Your task to perform on an android device: Is it going to rain this weekend? Image 0: 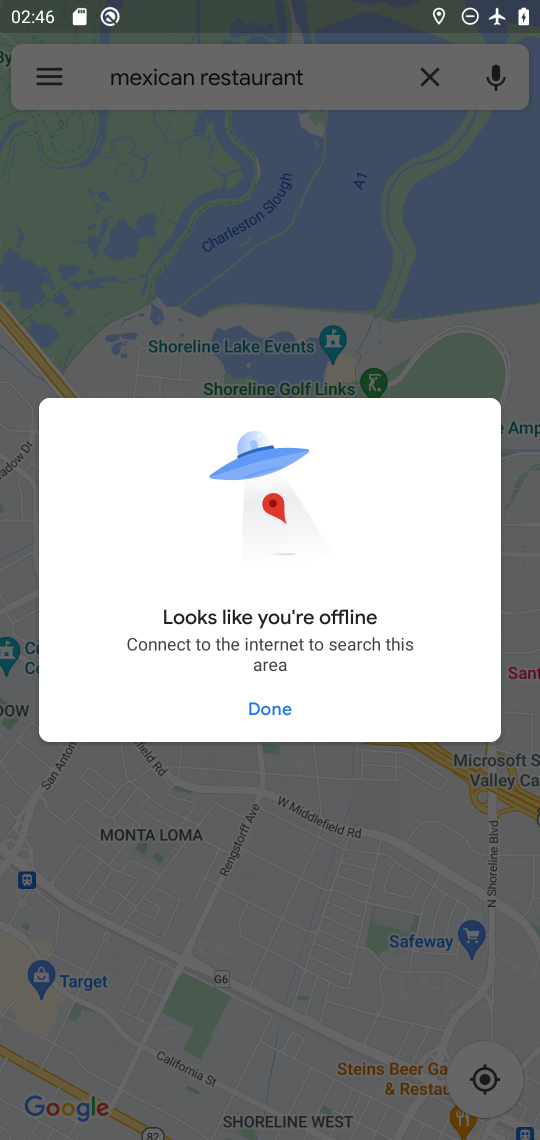
Step 0: press home button
Your task to perform on an android device: Is it going to rain this weekend? Image 1: 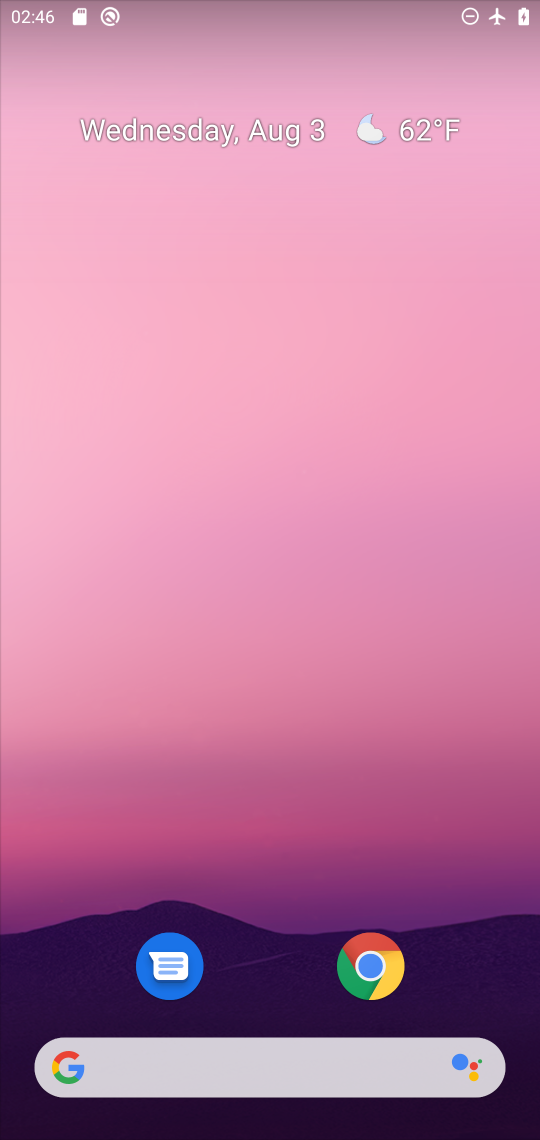
Step 1: drag from (249, 966) to (247, 384)
Your task to perform on an android device: Is it going to rain this weekend? Image 2: 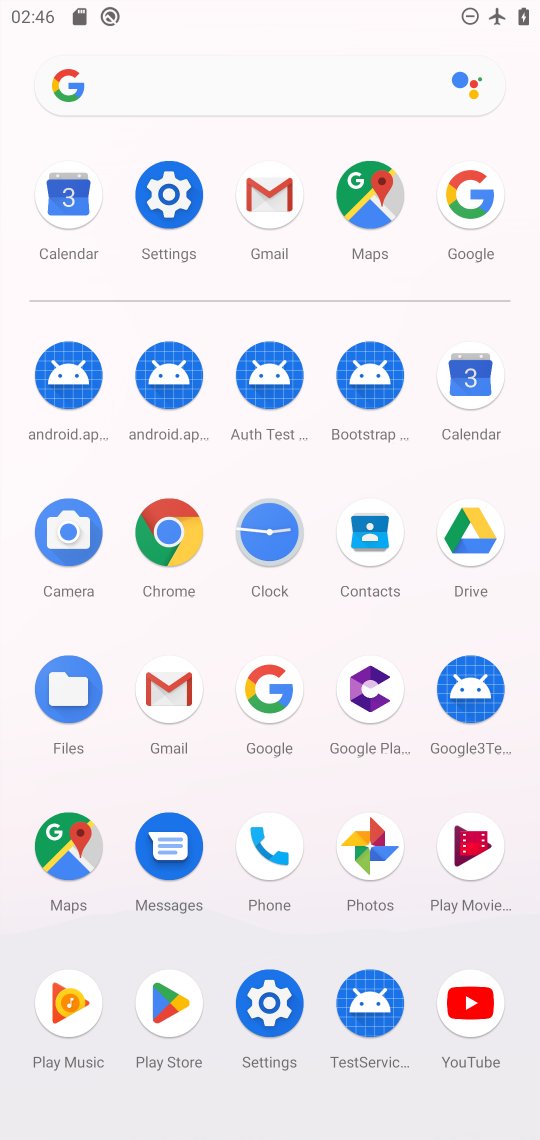
Step 2: click (260, 693)
Your task to perform on an android device: Is it going to rain this weekend? Image 3: 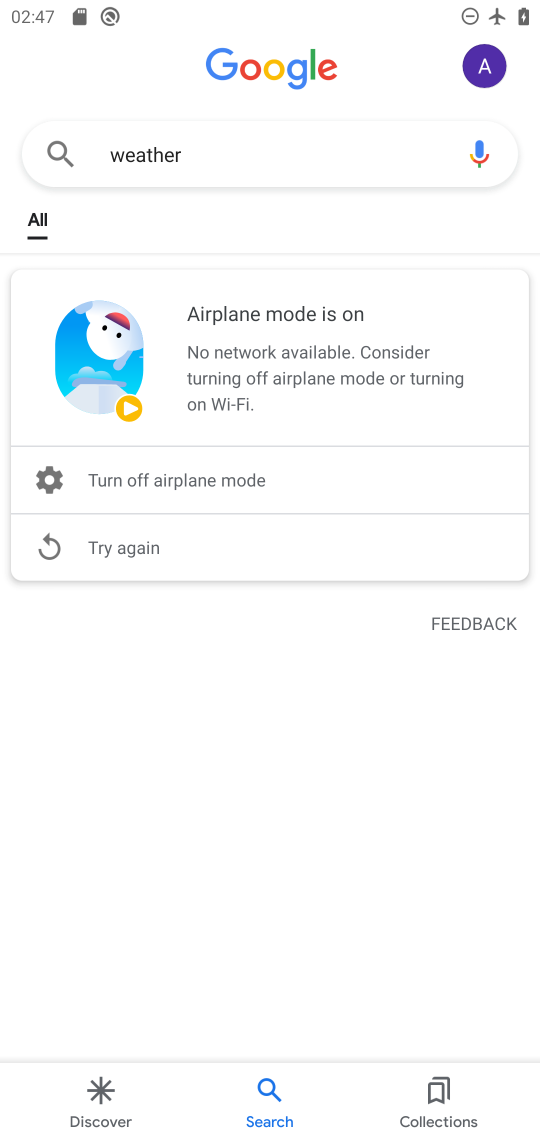
Step 3: task complete